Your task to perform on an android device: Open accessibility settings Image 0: 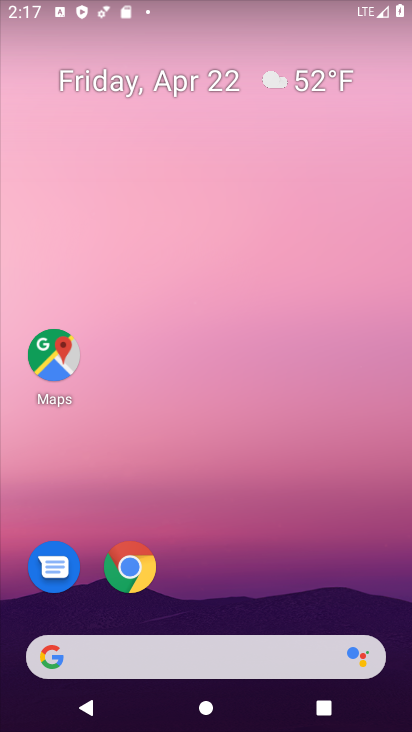
Step 0: drag from (382, 603) to (250, 156)
Your task to perform on an android device: Open accessibility settings Image 1: 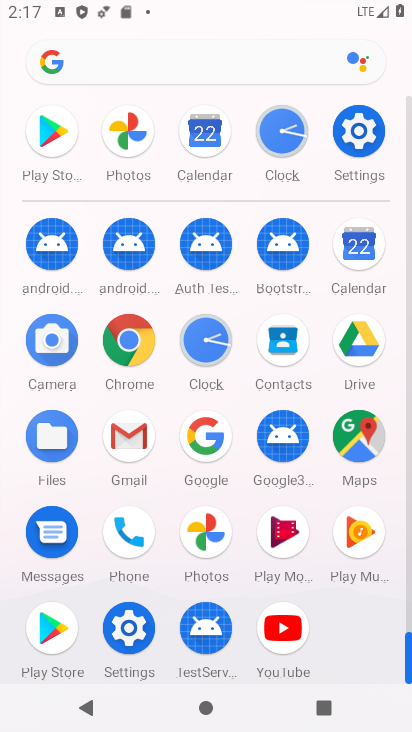
Step 1: click (130, 626)
Your task to perform on an android device: Open accessibility settings Image 2: 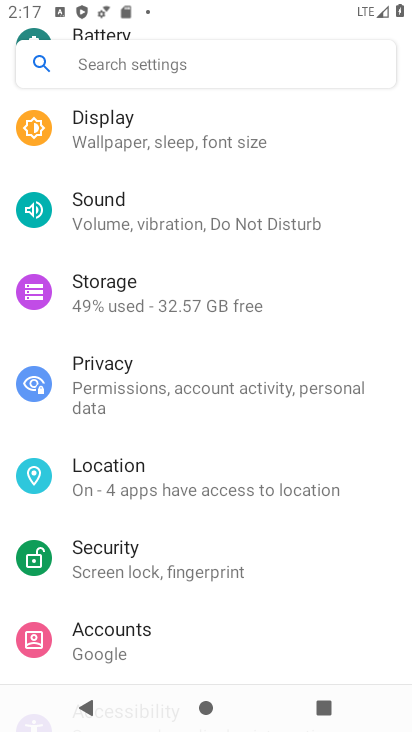
Step 2: drag from (290, 591) to (277, 231)
Your task to perform on an android device: Open accessibility settings Image 3: 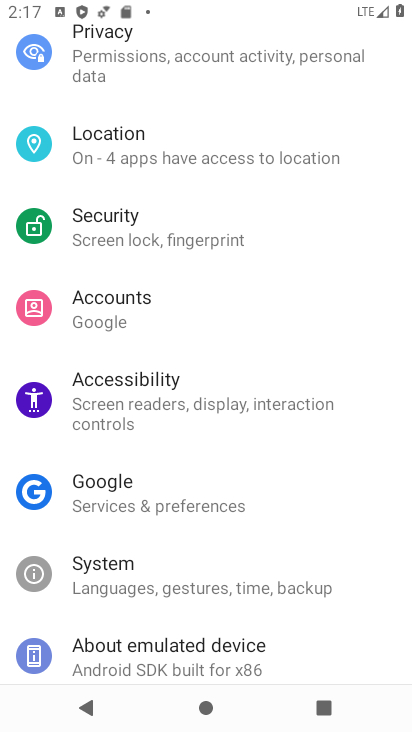
Step 3: click (95, 384)
Your task to perform on an android device: Open accessibility settings Image 4: 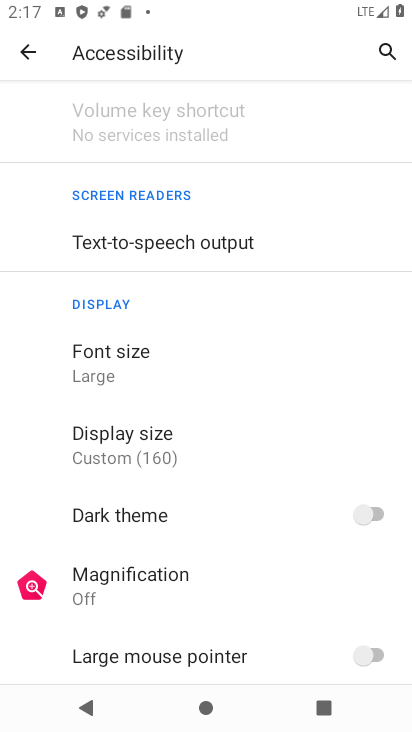
Step 4: task complete